Your task to perform on an android device: Search for pizza restaurants on Maps Image 0: 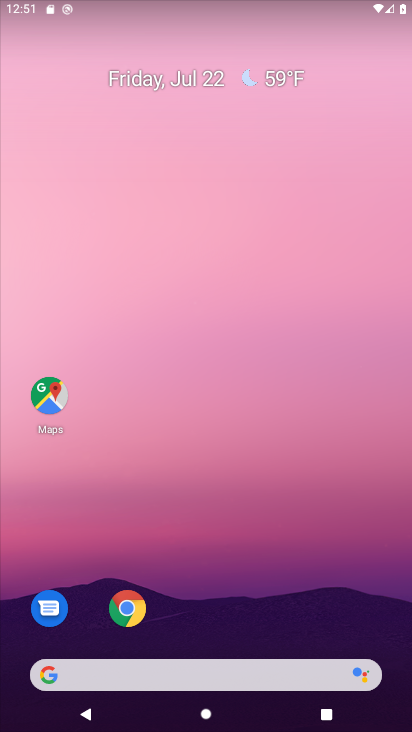
Step 0: drag from (211, 561) to (185, 0)
Your task to perform on an android device: Search for pizza restaurants on Maps Image 1: 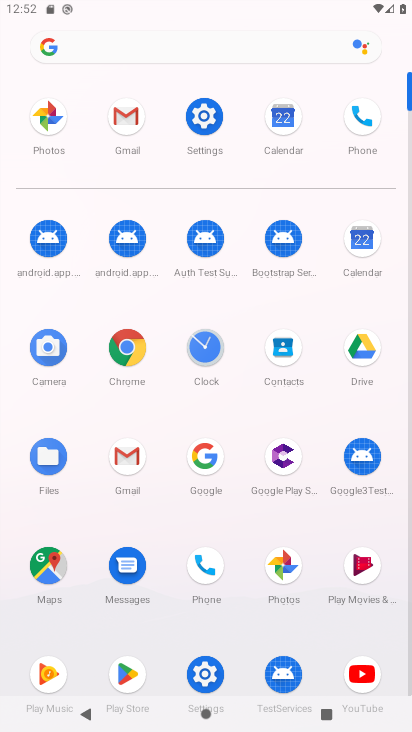
Step 1: click (39, 579)
Your task to perform on an android device: Search for pizza restaurants on Maps Image 2: 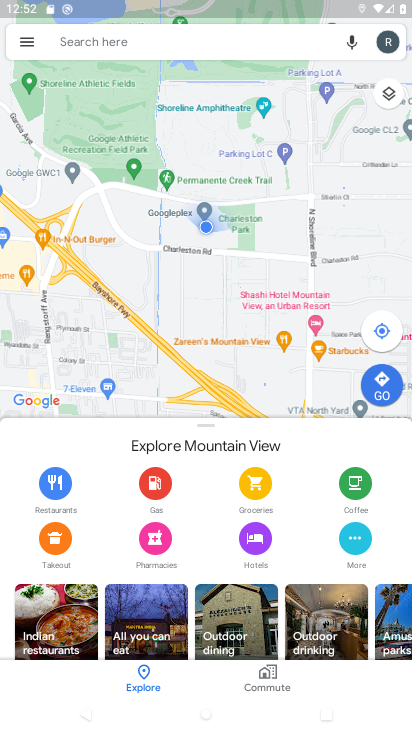
Step 2: click (126, 47)
Your task to perform on an android device: Search for pizza restaurants on Maps Image 3: 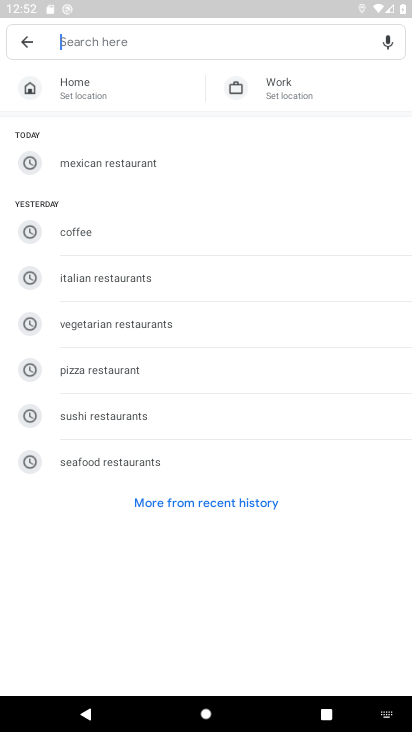
Step 3: type "Pizza restaurants"
Your task to perform on an android device: Search for pizza restaurants on Maps Image 4: 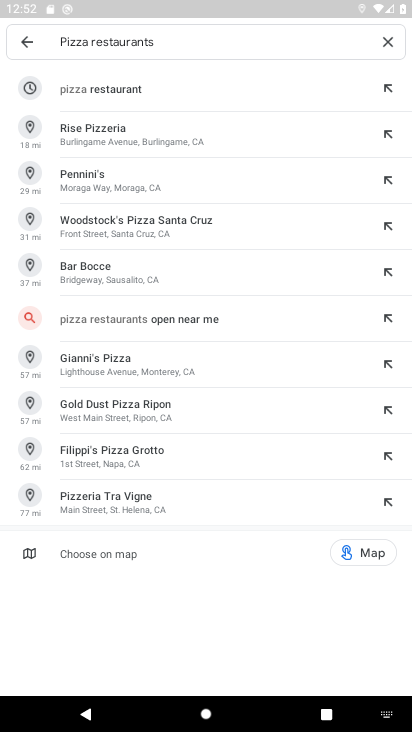
Step 4: click (151, 81)
Your task to perform on an android device: Search for pizza restaurants on Maps Image 5: 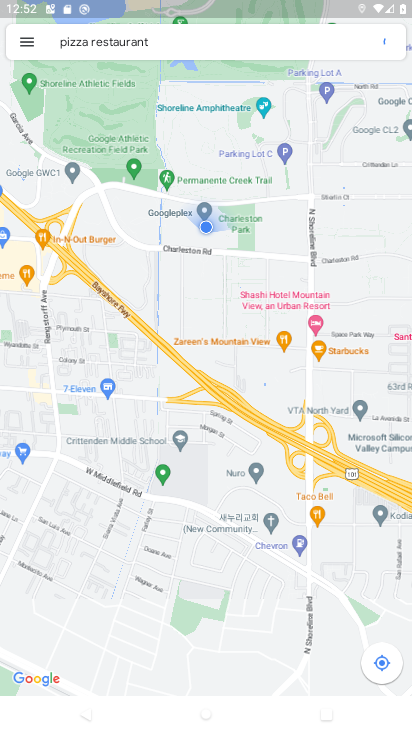
Step 5: task complete